Your task to perform on an android device: Open CNN.com Image 0: 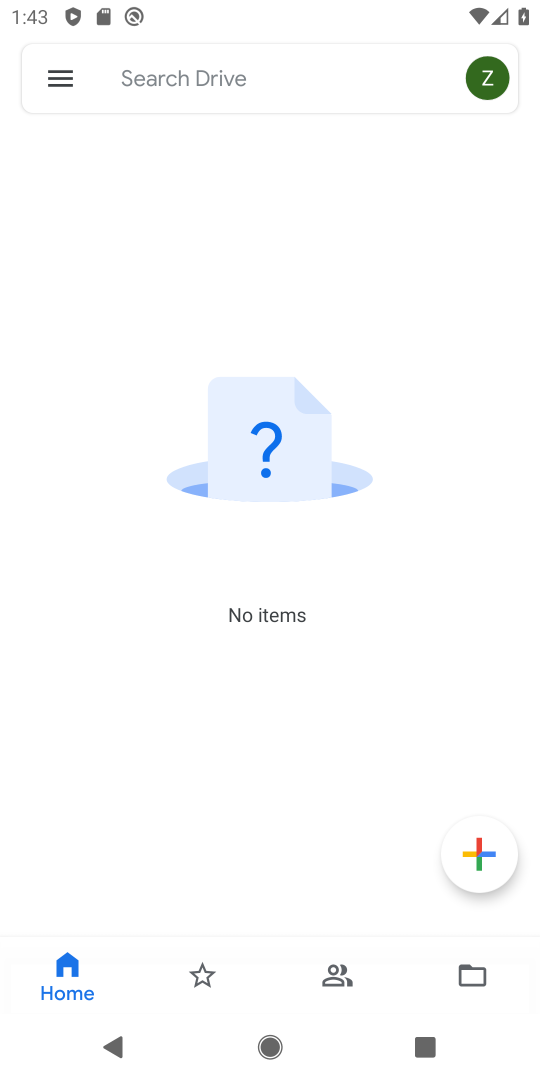
Step 0: press home button
Your task to perform on an android device: Open CNN.com Image 1: 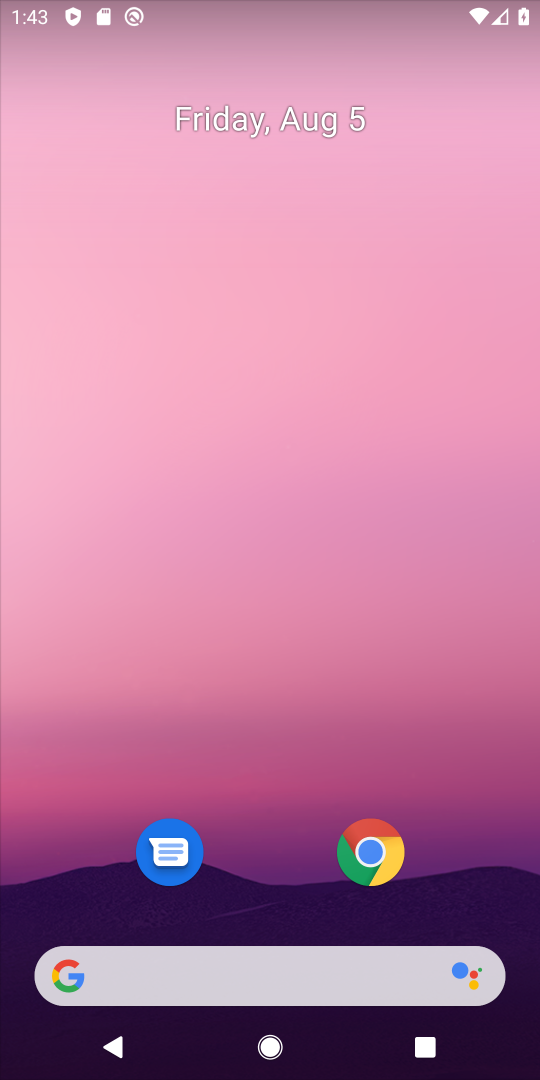
Step 1: click (377, 848)
Your task to perform on an android device: Open CNN.com Image 2: 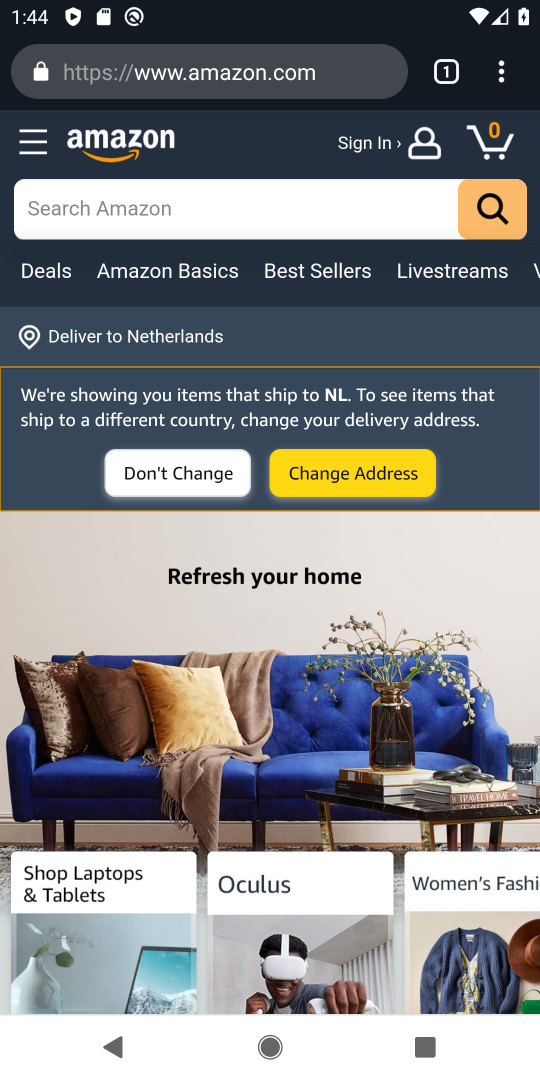
Step 2: click (503, 72)
Your task to perform on an android device: Open CNN.com Image 3: 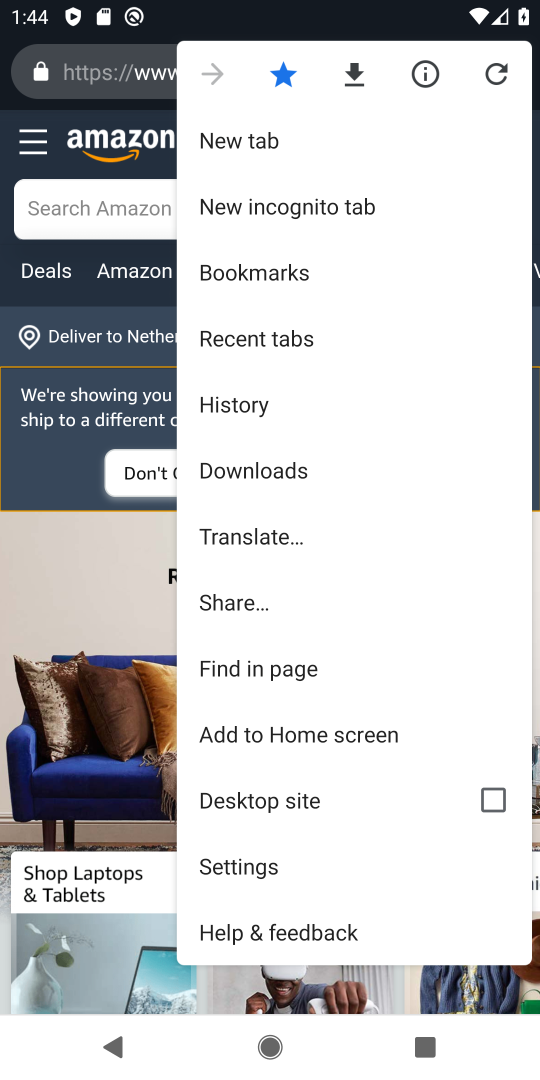
Step 3: click (257, 137)
Your task to perform on an android device: Open CNN.com Image 4: 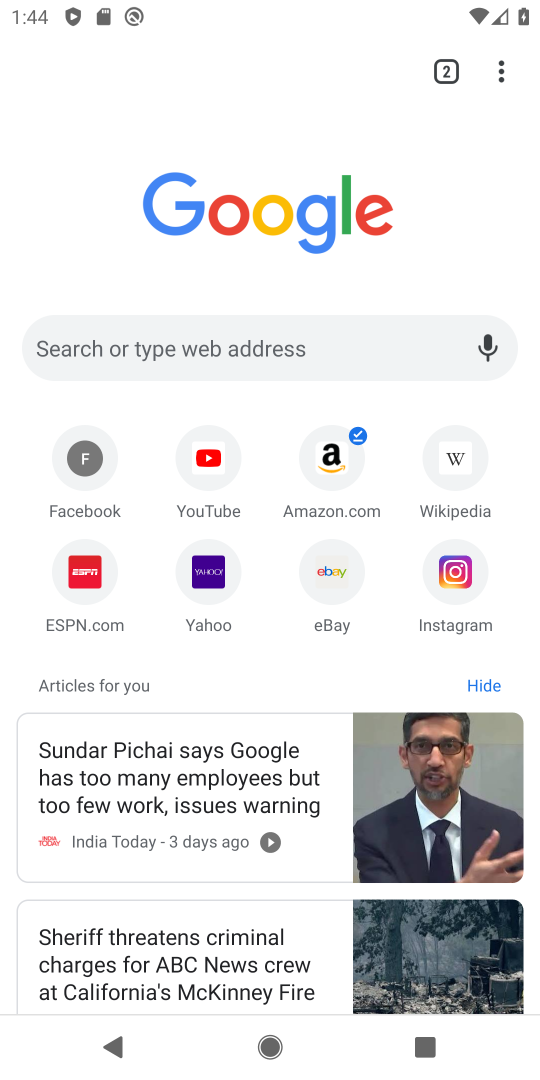
Step 4: click (218, 351)
Your task to perform on an android device: Open CNN.com Image 5: 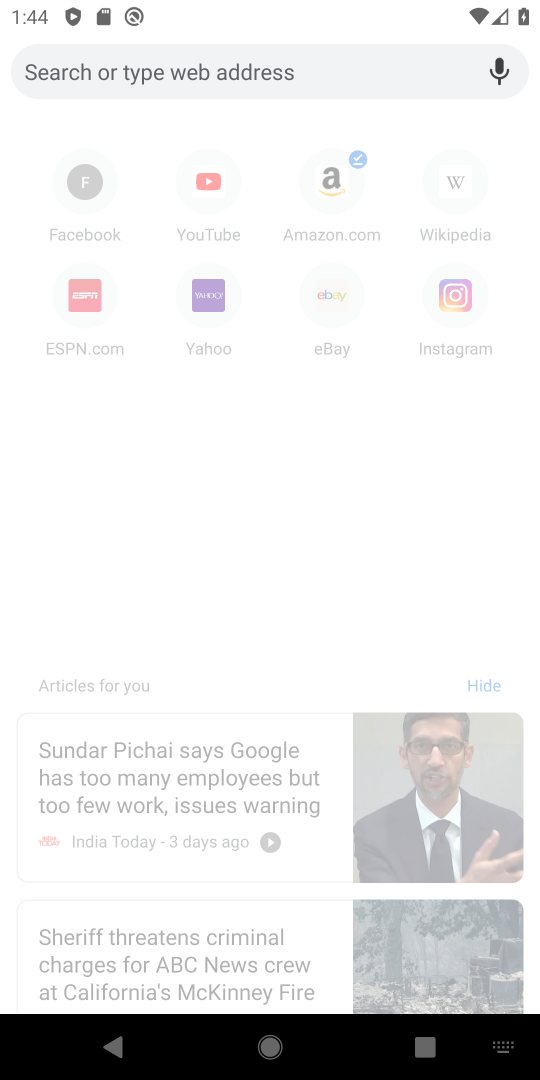
Step 5: type "cnn.com"
Your task to perform on an android device: Open CNN.com Image 6: 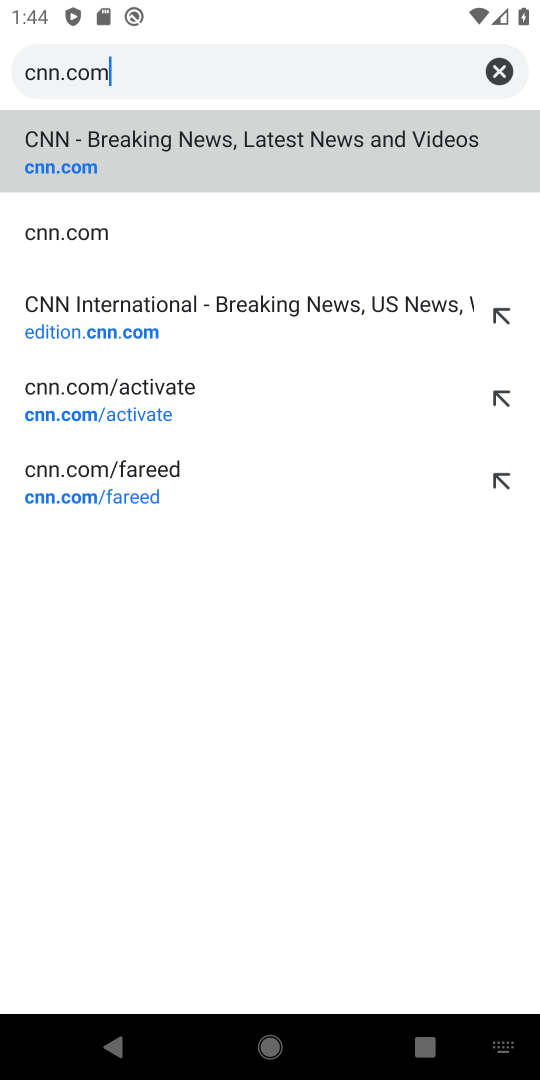
Step 6: click (219, 131)
Your task to perform on an android device: Open CNN.com Image 7: 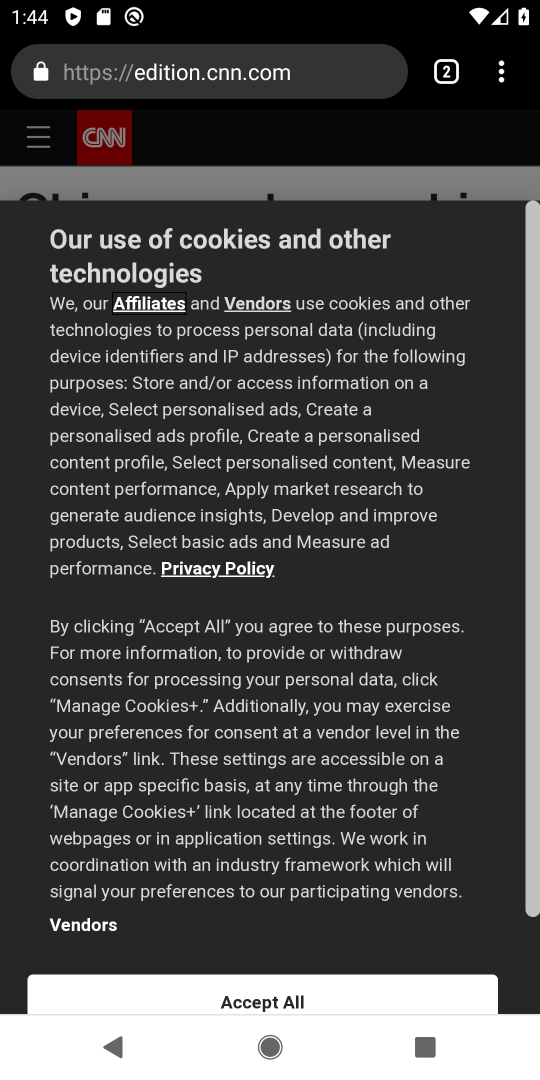
Step 7: click (271, 989)
Your task to perform on an android device: Open CNN.com Image 8: 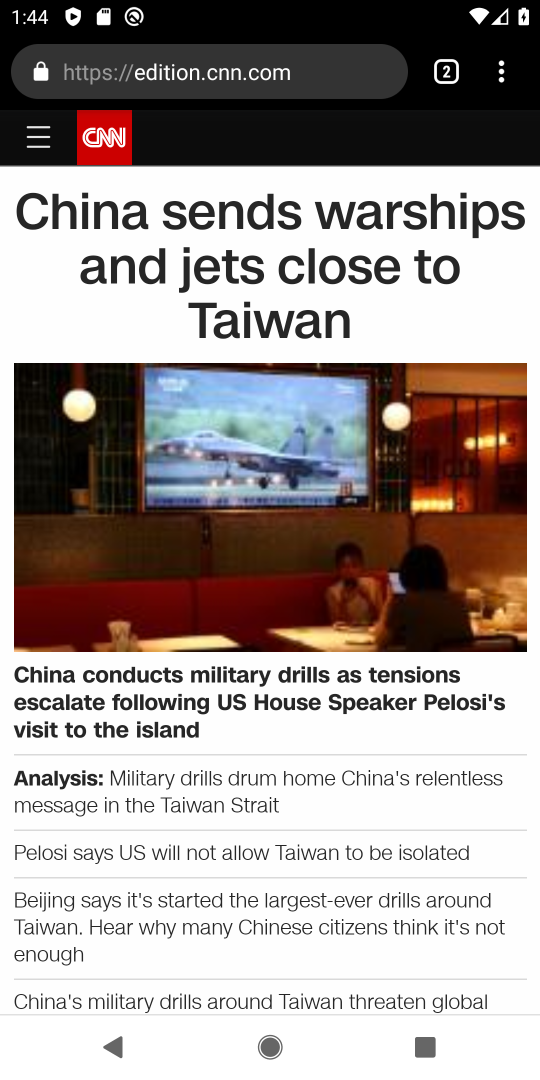
Step 8: task complete